Your task to perform on an android device: Clear the shopping cart on walmart. Add "razer blade" to the cart on walmart Image 0: 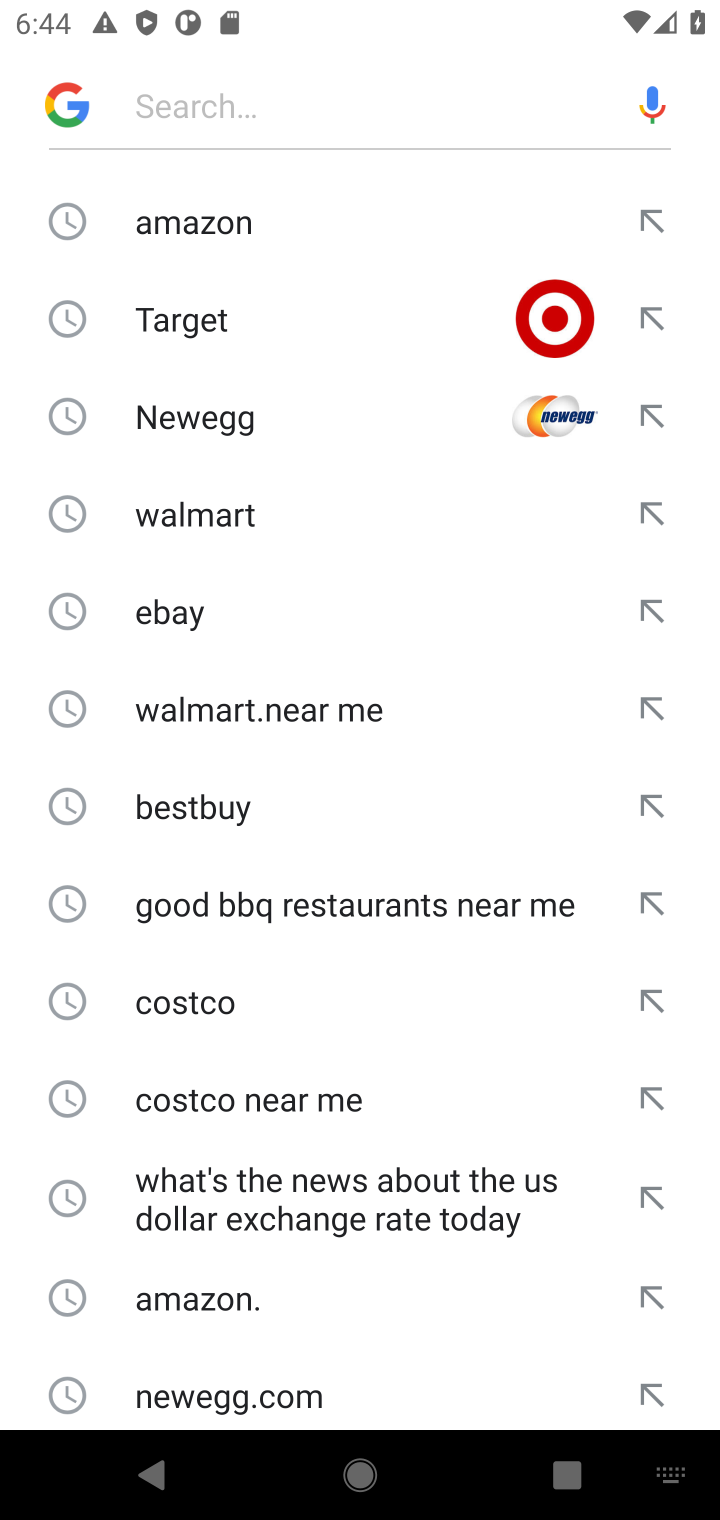
Step 0: type "walmart.com"
Your task to perform on an android device: Clear the shopping cart on walmart. Add "razer blade" to the cart on walmart Image 1: 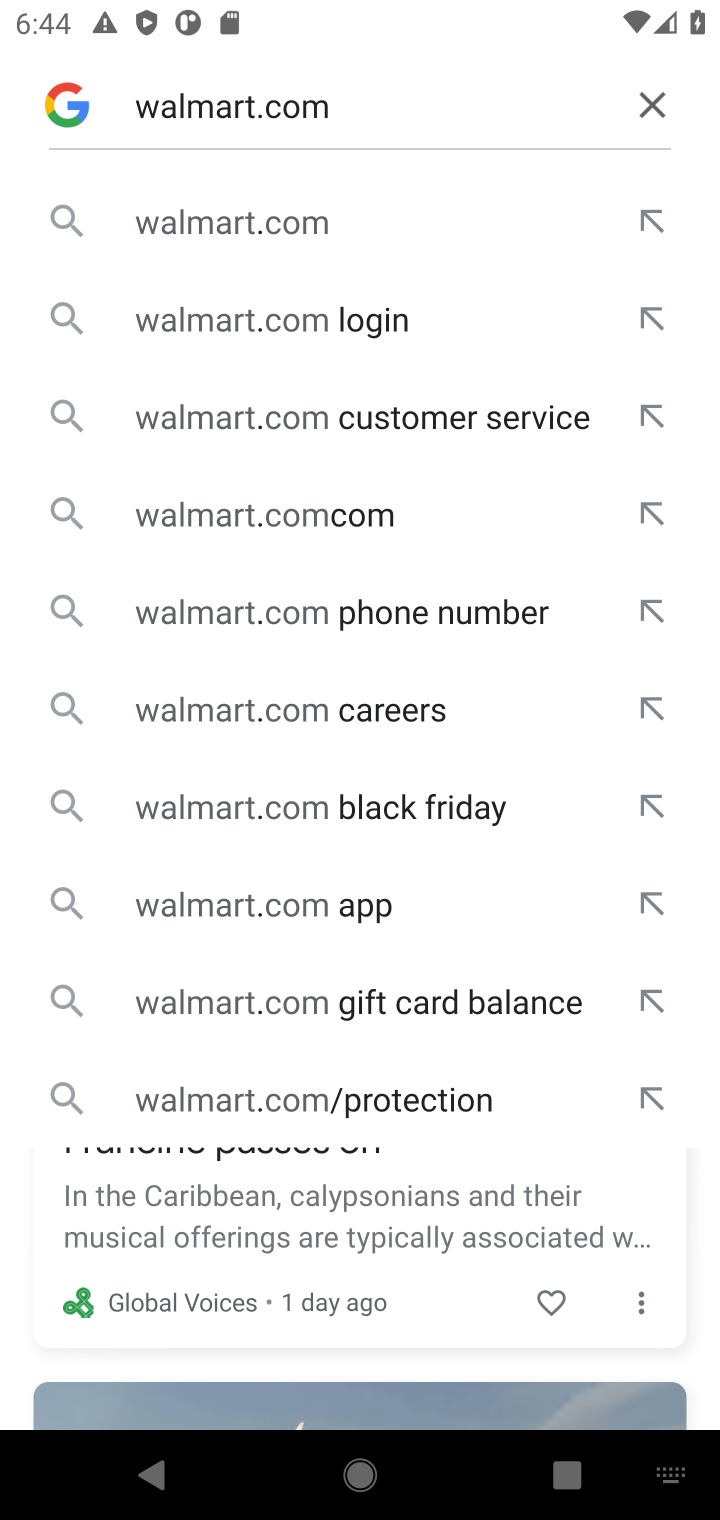
Step 1: click (192, 223)
Your task to perform on an android device: Clear the shopping cart on walmart. Add "razer blade" to the cart on walmart Image 2: 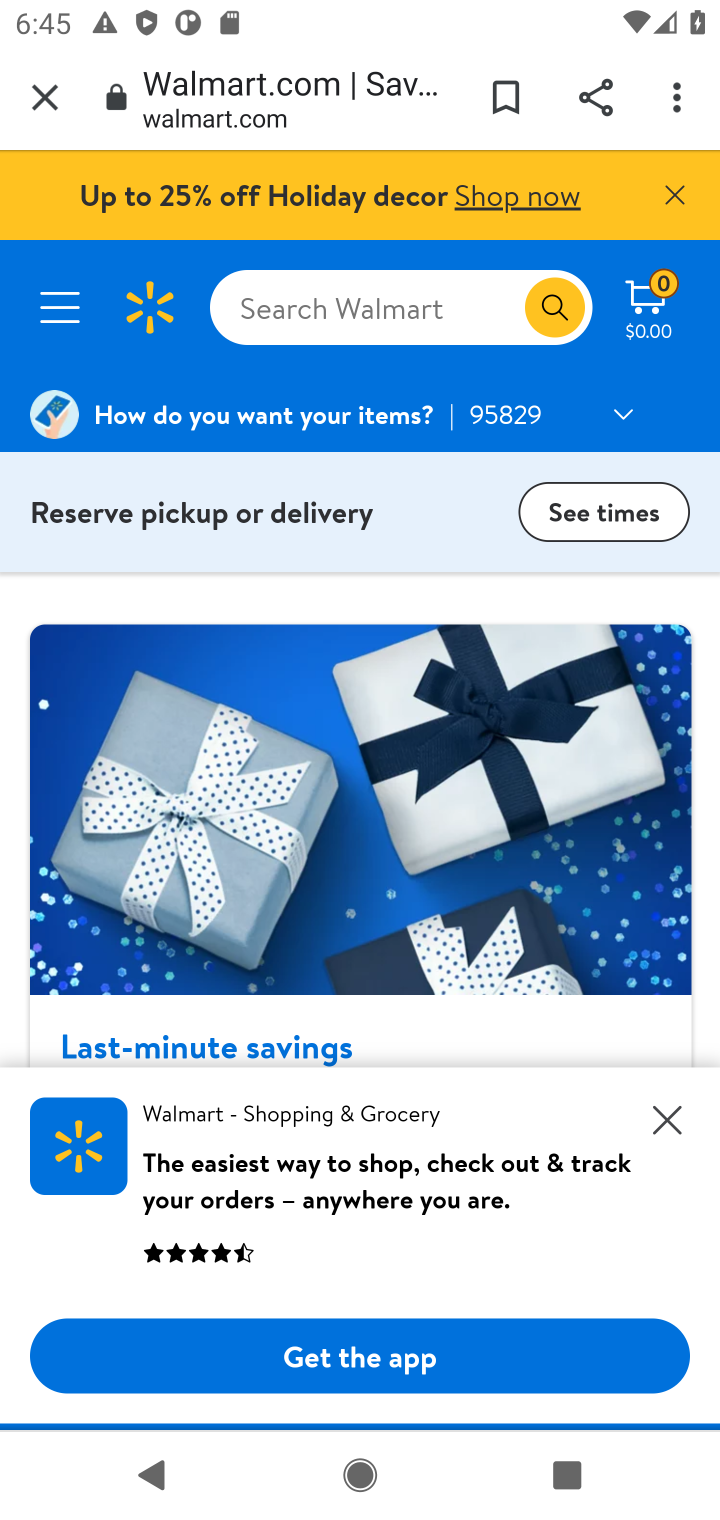
Step 2: click (653, 307)
Your task to perform on an android device: Clear the shopping cart on walmart. Add "razer blade" to the cart on walmart Image 3: 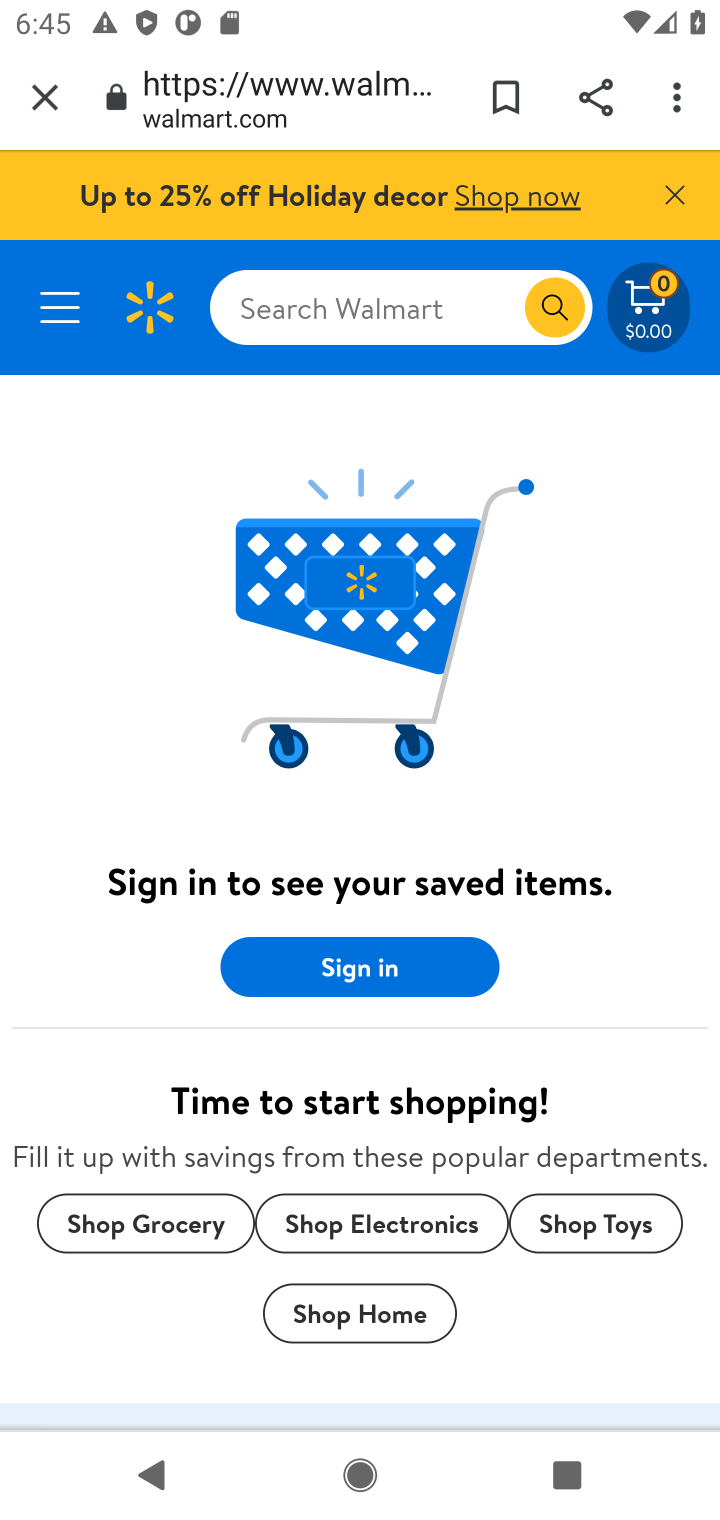
Step 3: click (317, 317)
Your task to perform on an android device: Clear the shopping cart on walmart. Add "razer blade" to the cart on walmart Image 4: 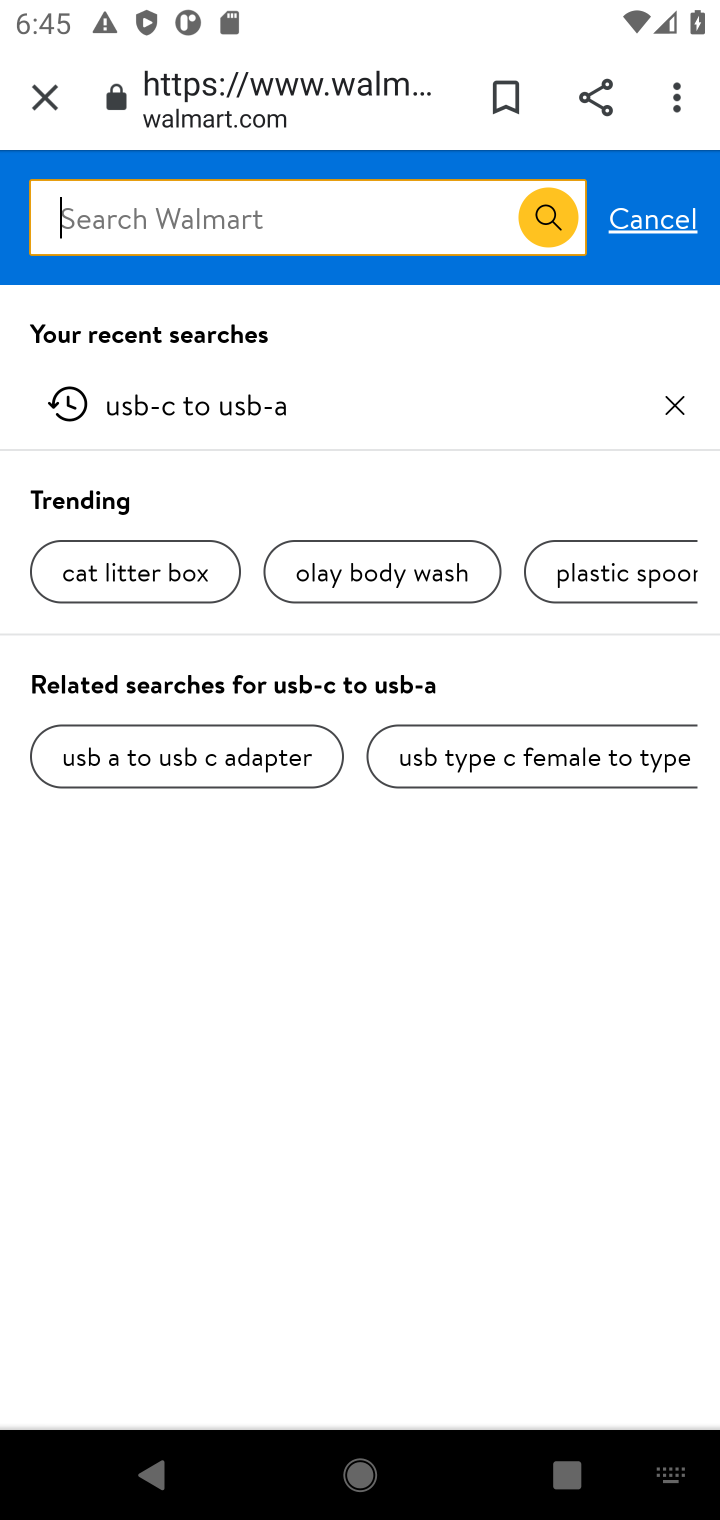
Step 4: type "razer blade"
Your task to perform on an android device: Clear the shopping cart on walmart. Add "razer blade" to the cart on walmart Image 5: 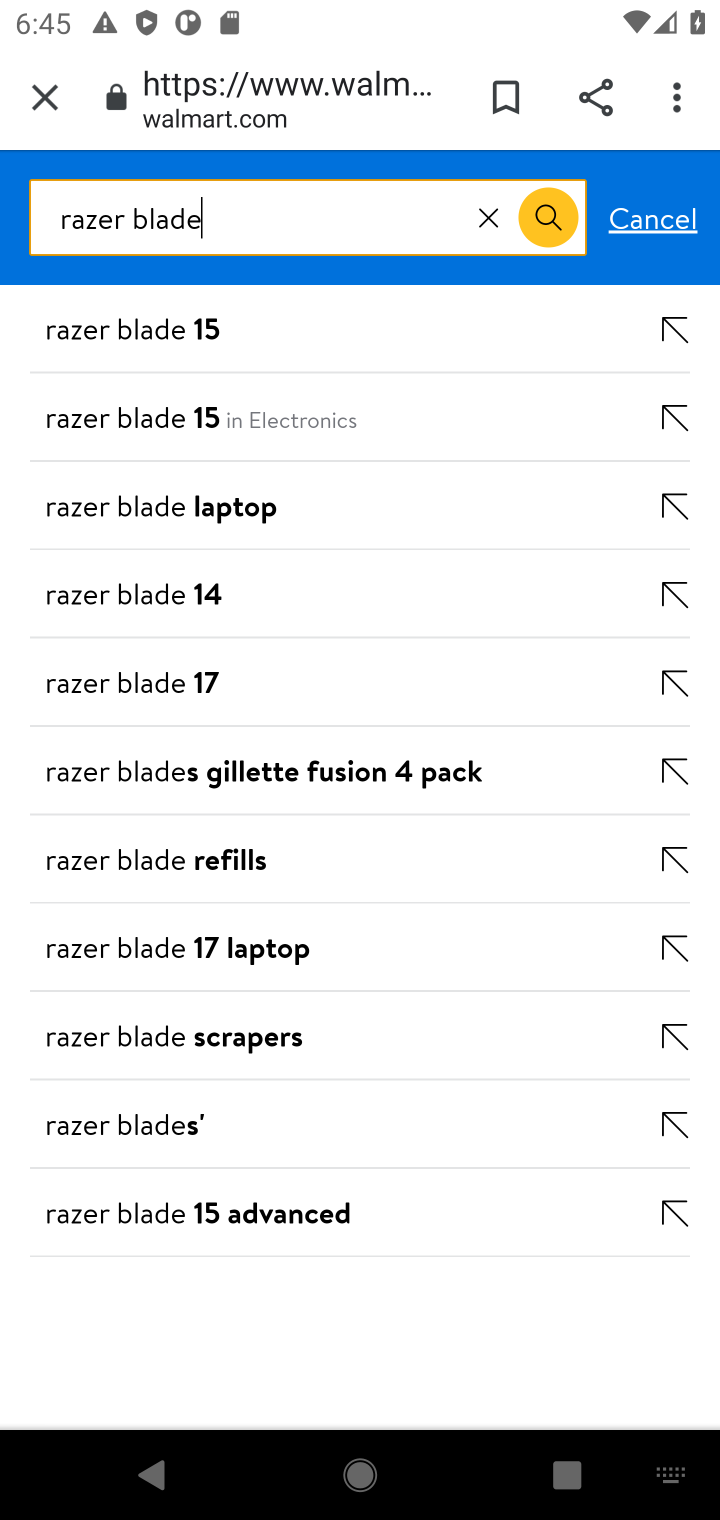
Step 5: click (116, 342)
Your task to perform on an android device: Clear the shopping cart on walmart. Add "razer blade" to the cart on walmart Image 6: 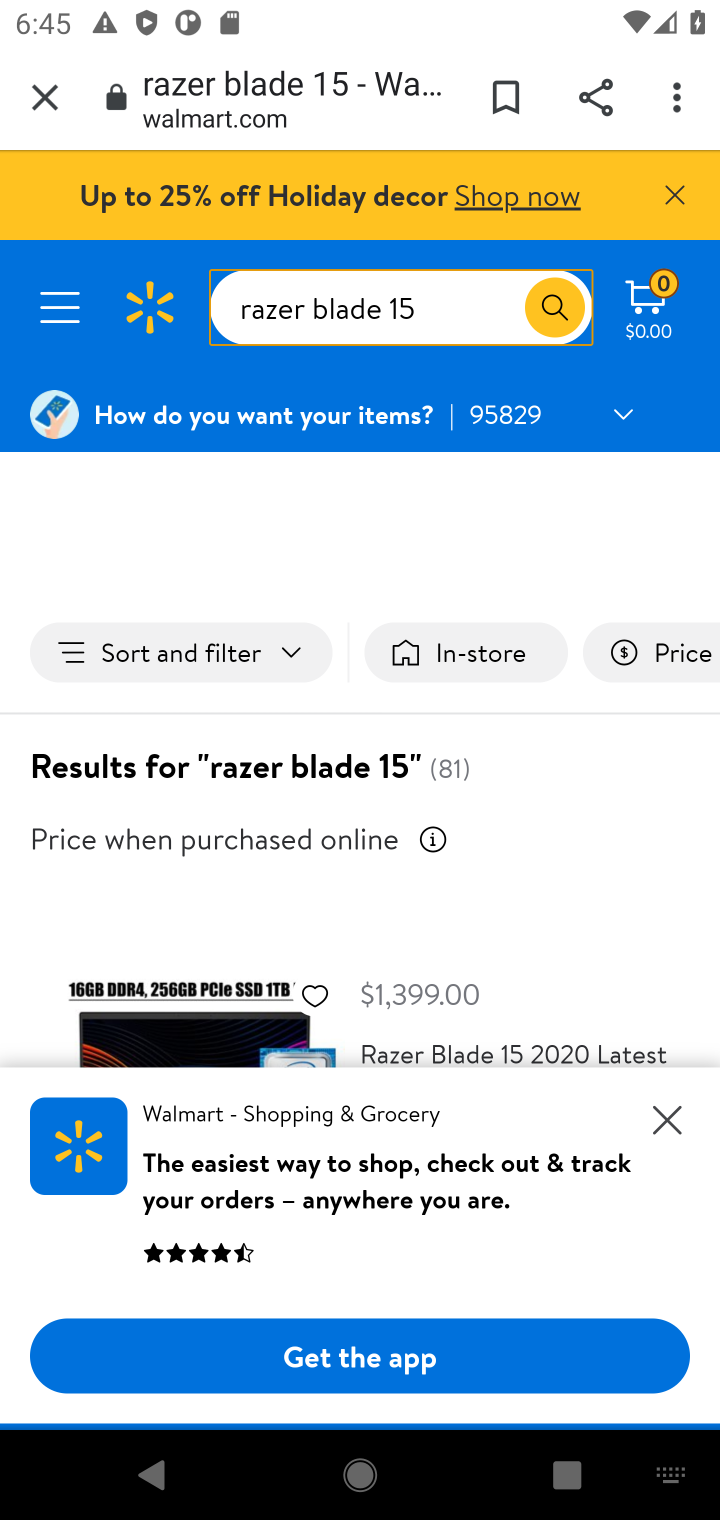
Step 6: drag from (463, 902) to (425, 381)
Your task to perform on an android device: Clear the shopping cart on walmart. Add "razer blade" to the cart on walmart Image 7: 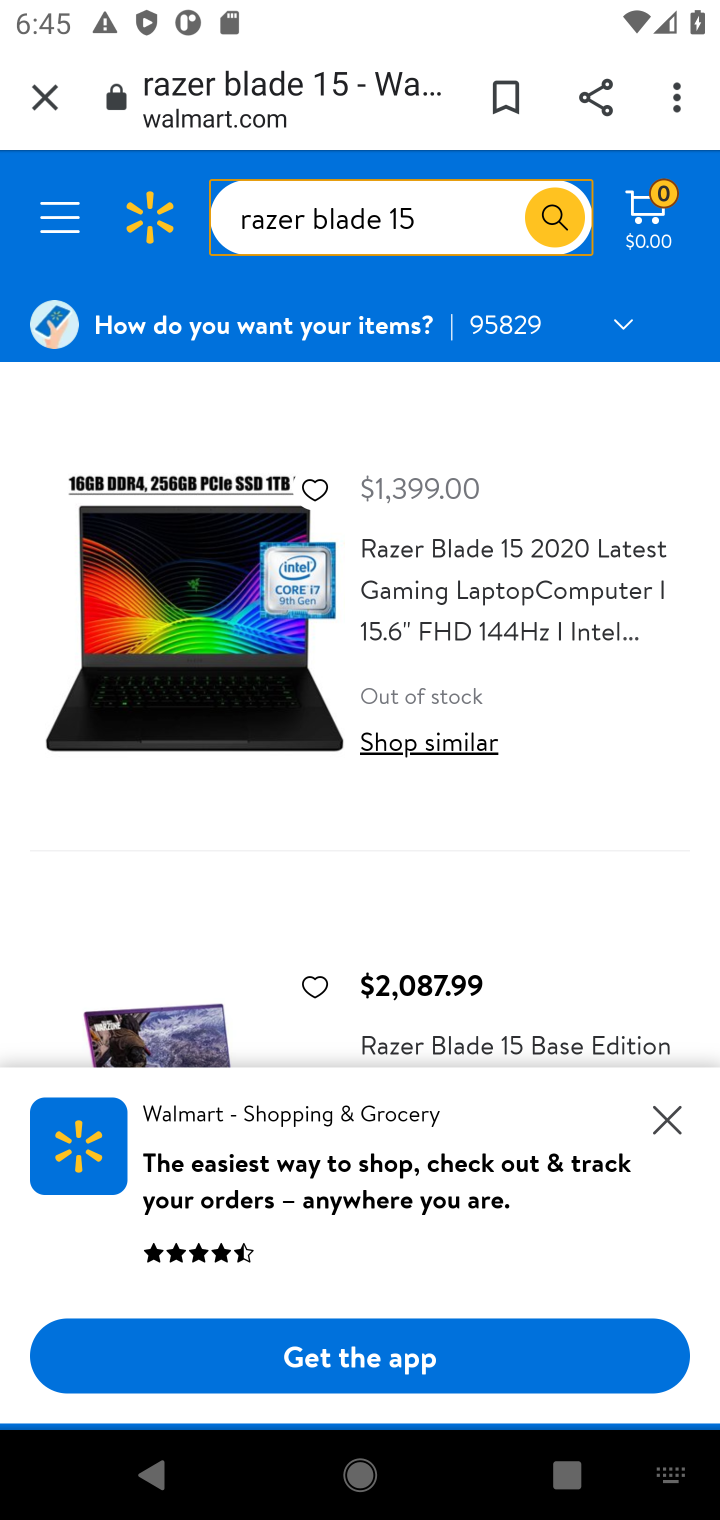
Step 7: click (673, 1136)
Your task to perform on an android device: Clear the shopping cart on walmart. Add "razer blade" to the cart on walmart Image 8: 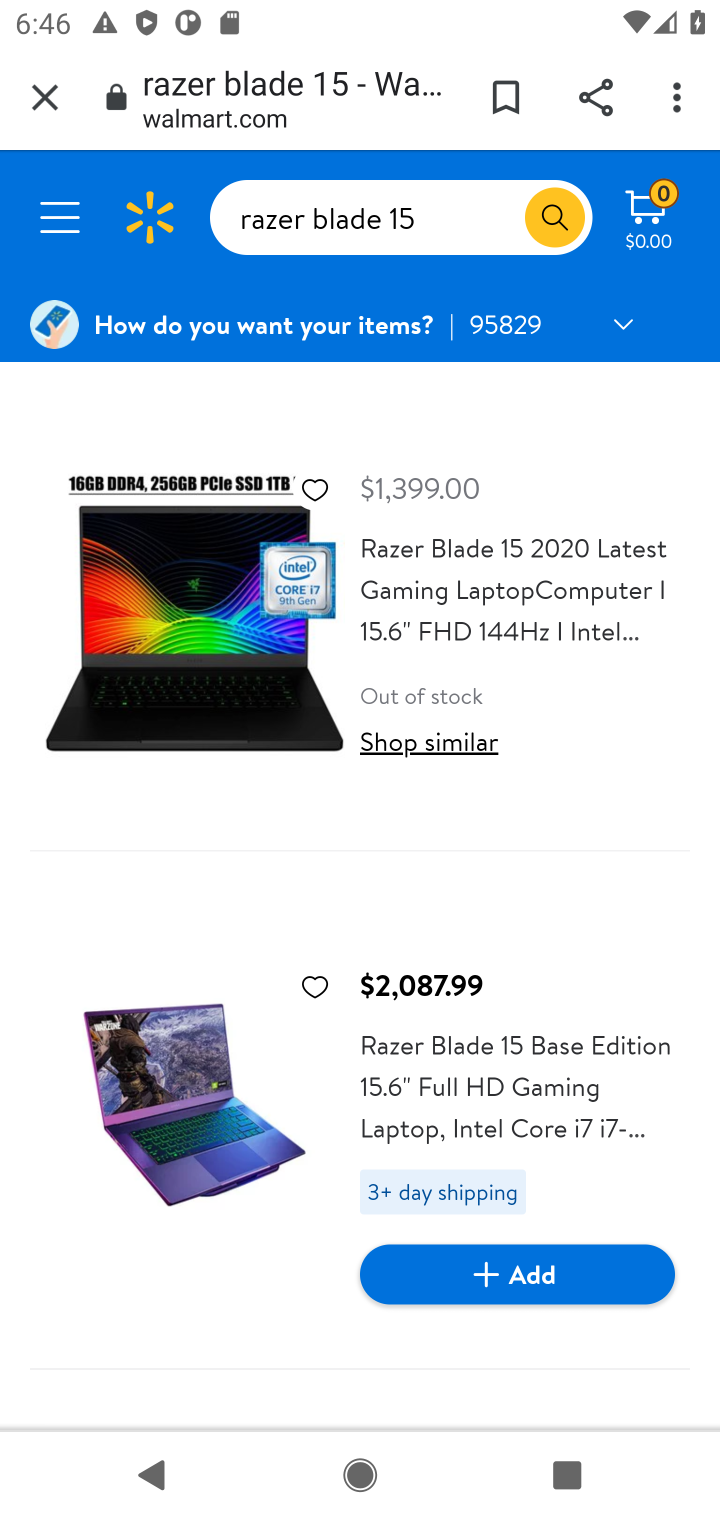
Step 8: click (520, 1074)
Your task to perform on an android device: Clear the shopping cart on walmart. Add "razer blade" to the cart on walmart Image 9: 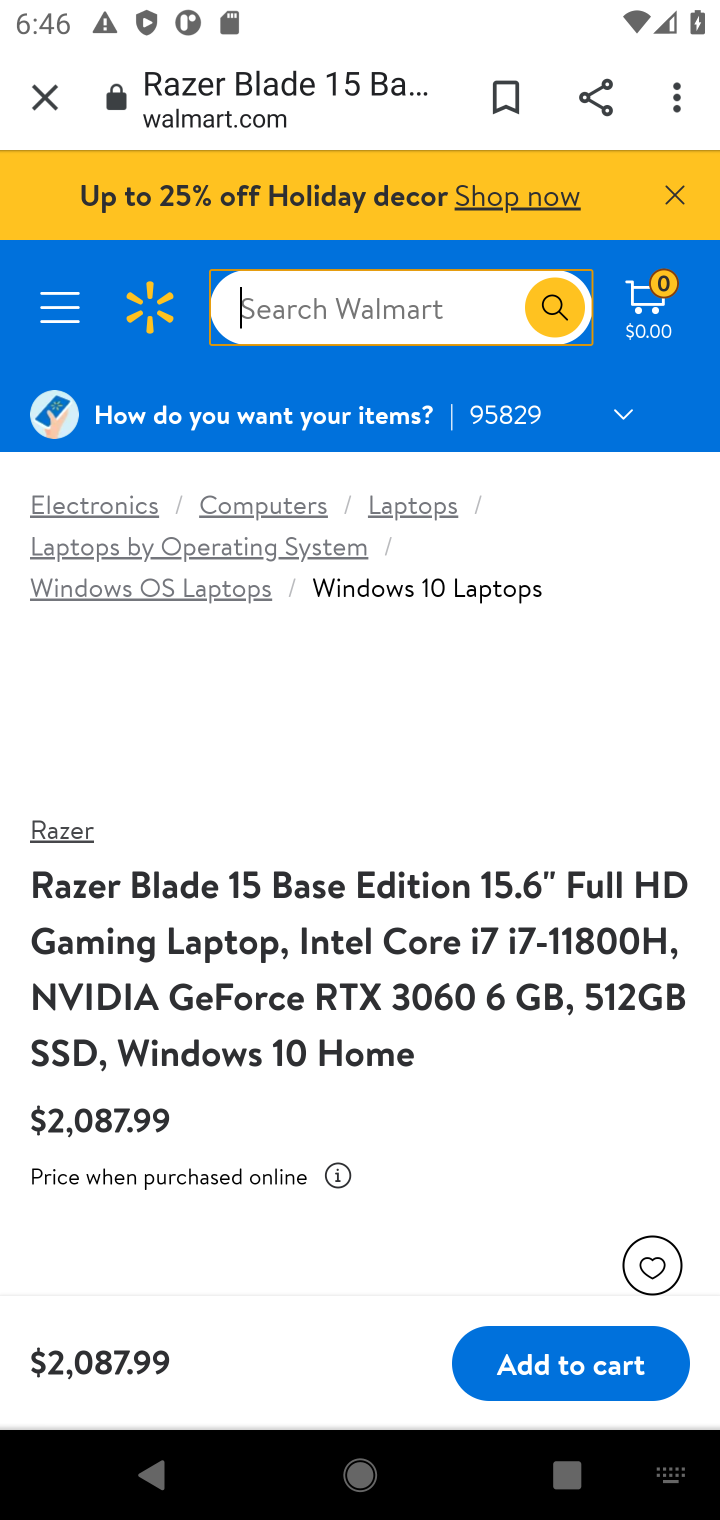
Step 9: click (586, 1364)
Your task to perform on an android device: Clear the shopping cart on walmart. Add "razer blade" to the cart on walmart Image 10: 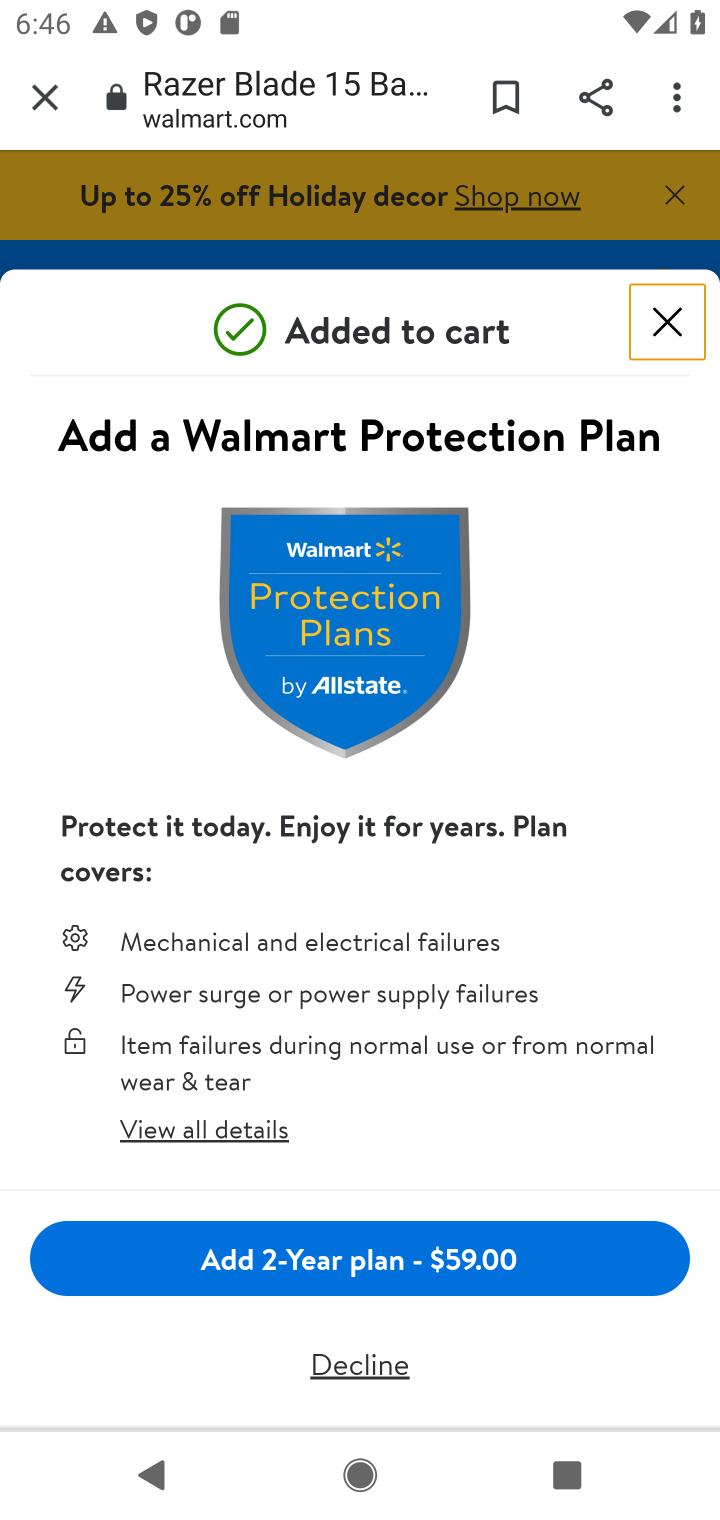
Step 10: task complete